Your task to perform on an android device: Open accessibility settings Image 0: 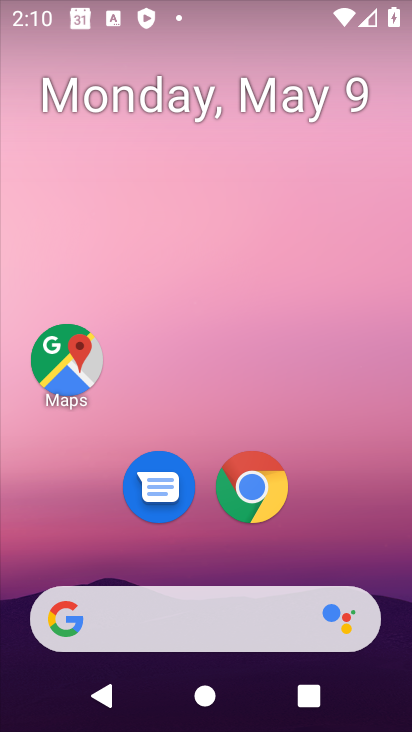
Step 0: drag from (346, 521) to (304, 48)
Your task to perform on an android device: Open accessibility settings Image 1: 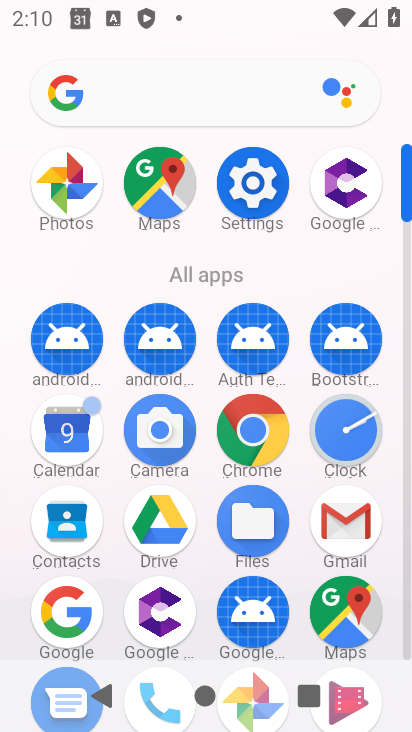
Step 1: click (260, 168)
Your task to perform on an android device: Open accessibility settings Image 2: 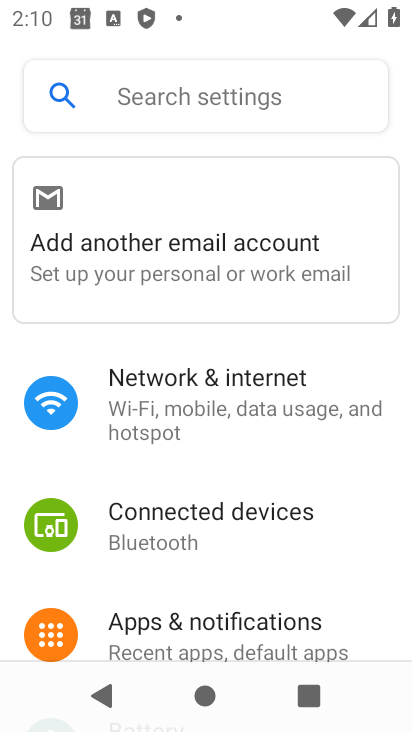
Step 2: drag from (210, 614) to (214, 80)
Your task to perform on an android device: Open accessibility settings Image 3: 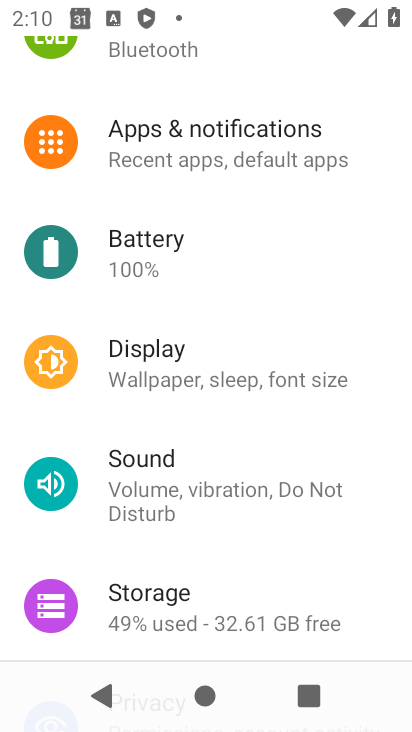
Step 3: drag from (226, 597) to (236, 0)
Your task to perform on an android device: Open accessibility settings Image 4: 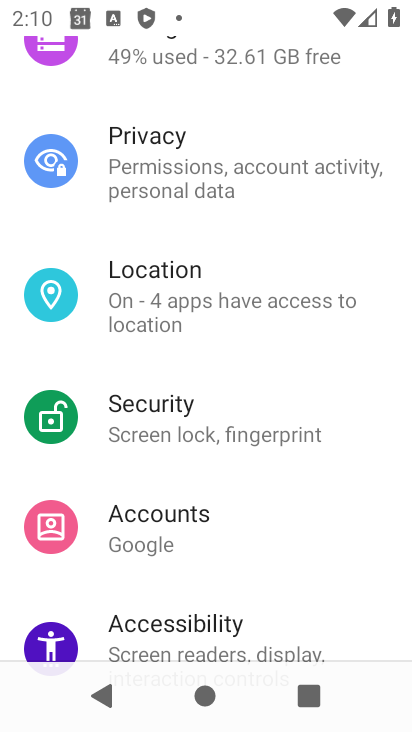
Step 4: click (240, 626)
Your task to perform on an android device: Open accessibility settings Image 5: 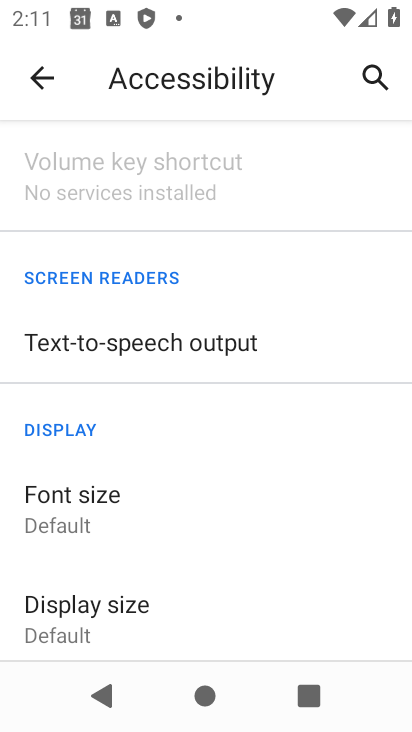
Step 5: task complete